Your task to perform on an android device: choose inbox layout in the gmail app Image 0: 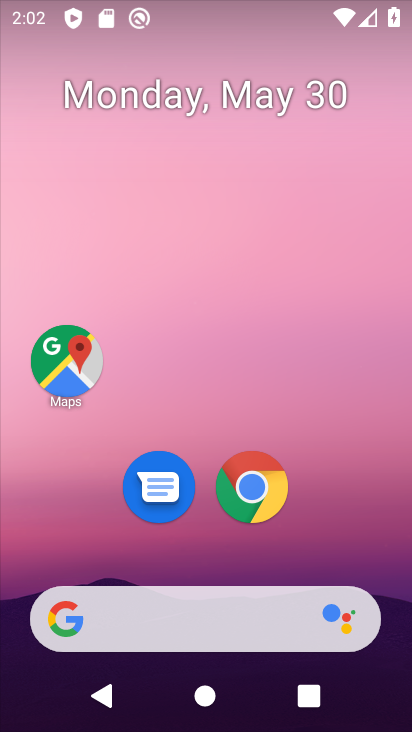
Step 0: drag from (205, 526) to (226, 2)
Your task to perform on an android device: choose inbox layout in the gmail app Image 1: 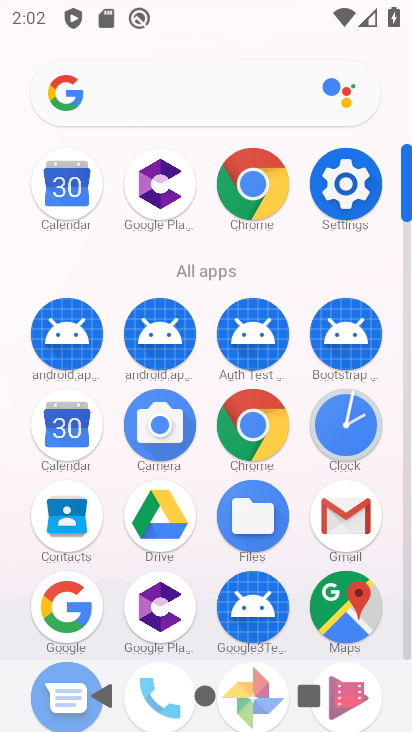
Step 1: click (346, 510)
Your task to perform on an android device: choose inbox layout in the gmail app Image 2: 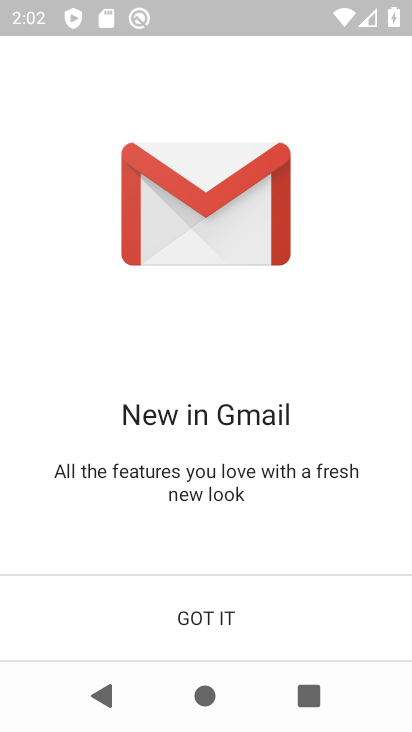
Step 2: click (206, 610)
Your task to perform on an android device: choose inbox layout in the gmail app Image 3: 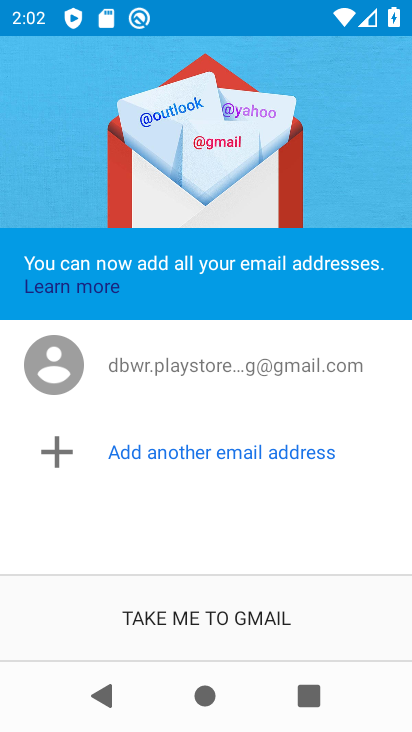
Step 3: click (206, 610)
Your task to perform on an android device: choose inbox layout in the gmail app Image 4: 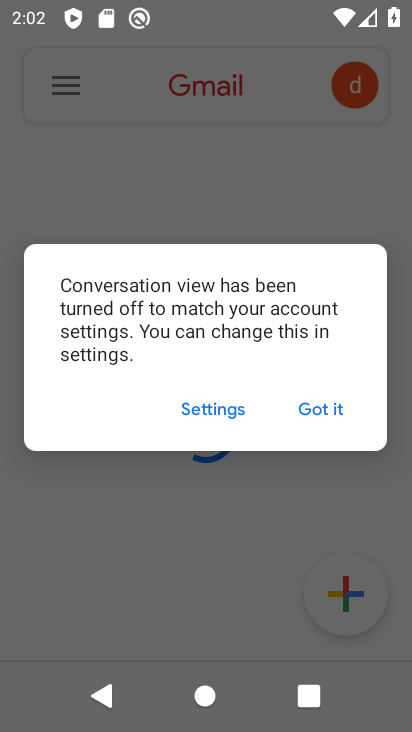
Step 4: click (320, 403)
Your task to perform on an android device: choose inbox layout in the gmail app Image 5: 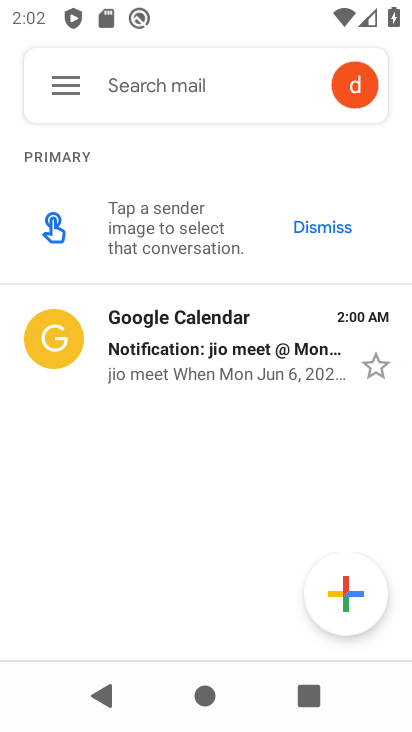
Step 5: click (74, 77)
Your task to perform on an android device: choose inbox layout in the gmail app Image 6: 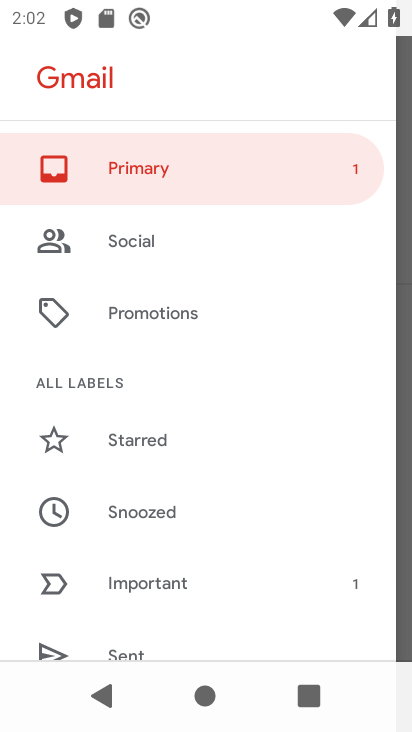
Step 6: drag from (194, 555) to (227, 202)
Your task to perform on an android device: choose inbox layout in the gmail app Image 7: 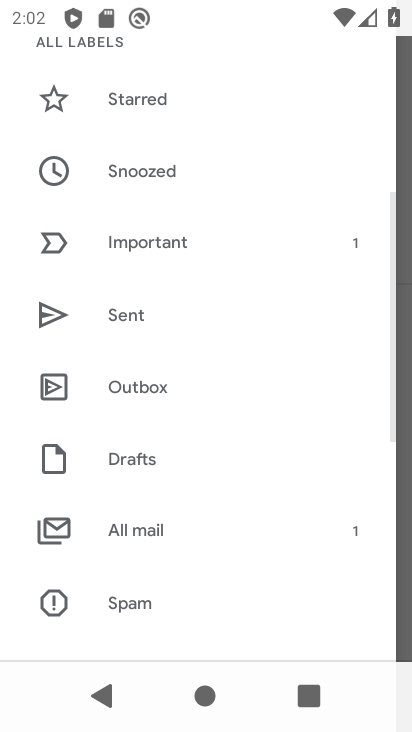
Step 7: drag from (166, 563) to (202, 292)
Your task to perform on an android device: choose inbox layout in the gmail app Image 8: 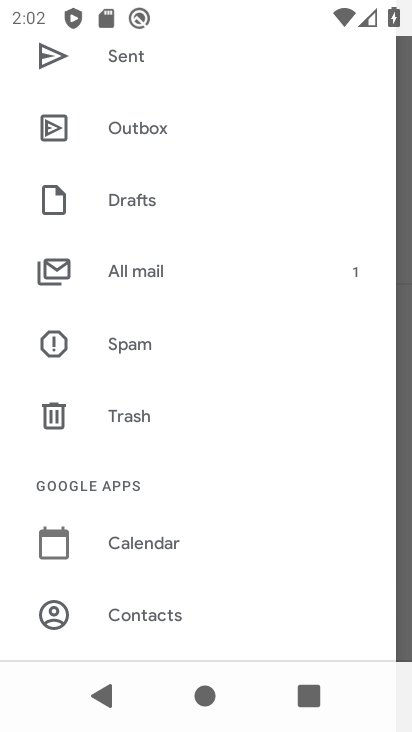
Step 8: drag from (117, 628) to (166, 359)
Your task to perform on an android device: choose inbox layout in the gmail app Image 9: 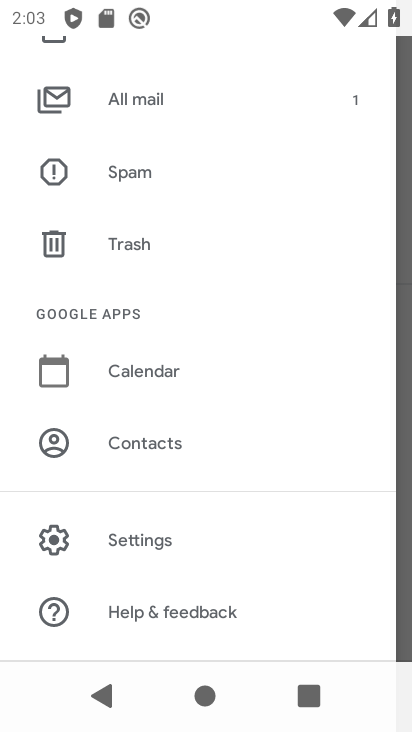
Step 9: click (146, 548)
Your task to perform on an android device: choose inbox layout in the gmail app Image 10: 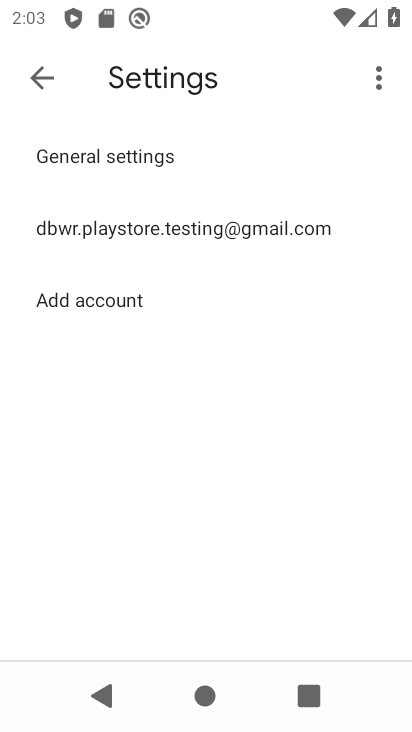
Step 10: click (170, 233)
Your task to perform on an android device: choose inbox layout in the gmail app Image 11: 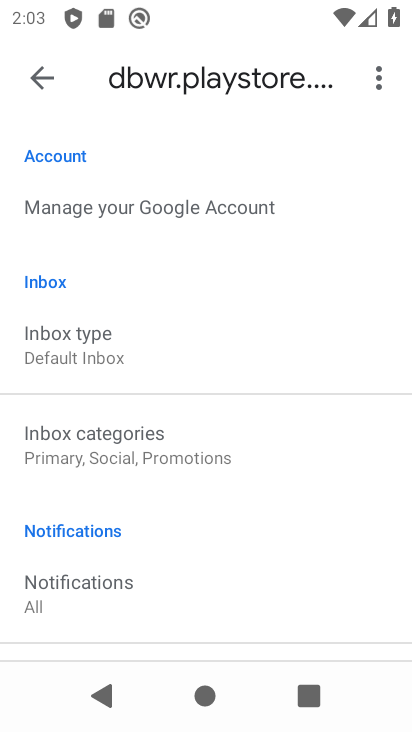
Step 11: drag from (126, 615) to (119, 332)
Your task to perform on an android device: choose inbox layout in the gmail app Image 12: 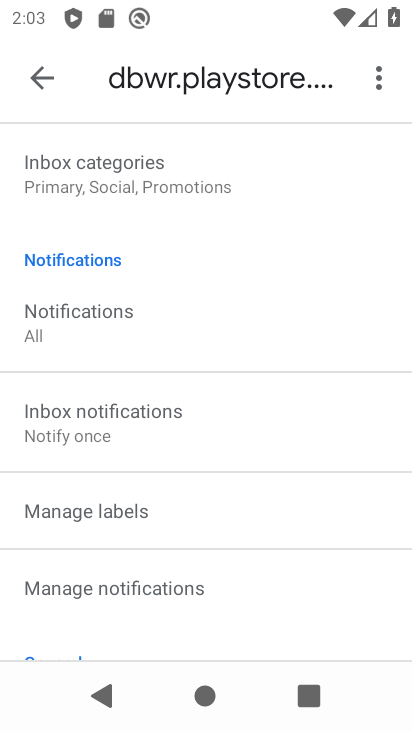
Step 12: drag from (149, 602) to (168, 246)
Your task to perform on an android device: choose inbox layout in the gmail app Image 13: 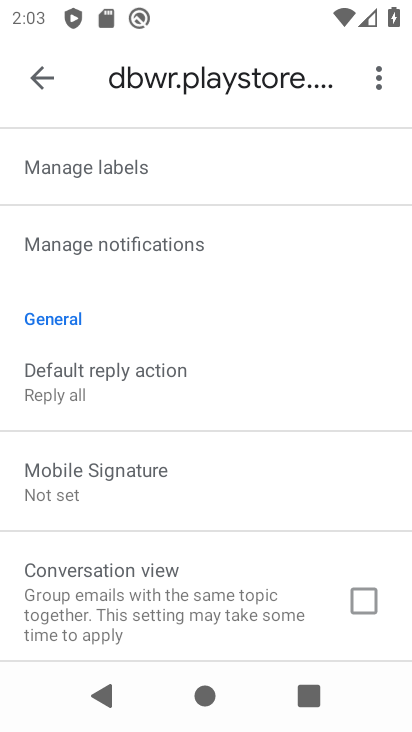
Step 13: drag from (137, 593) to (131, 276)
Your task to perform on an android device: choose inbox layout in the gmail app Image 14: 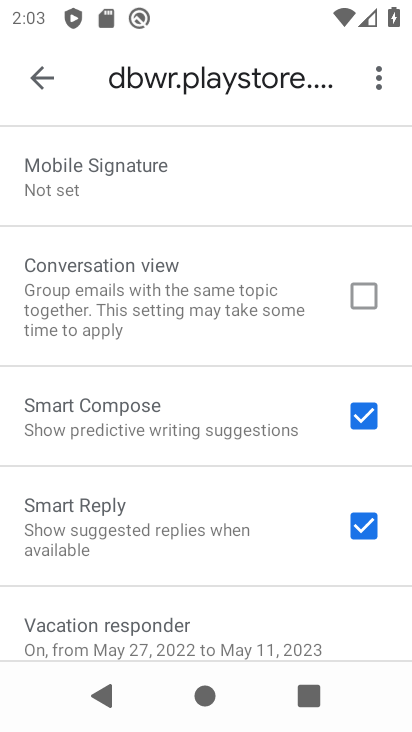
Step 14: drag from (247, 215) to (207, 574)
Your task to perform on an android device: choose inbox layout in the gmail app Image 15: 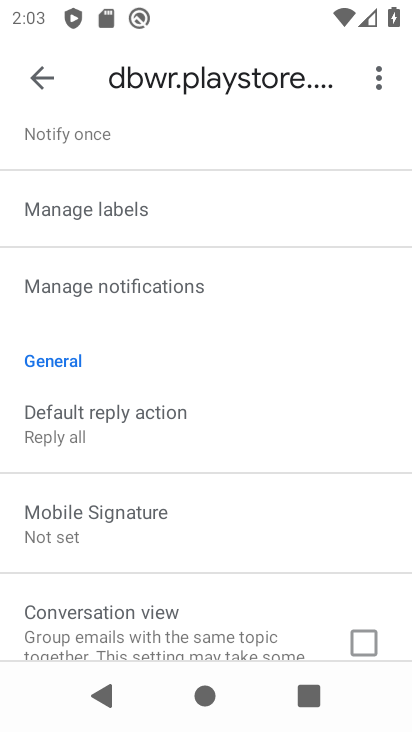
Step 15: drag from (254, 276) to (292, 676)
Your task to perform on an android device: choose inbox layout in the gmail app Image 16: 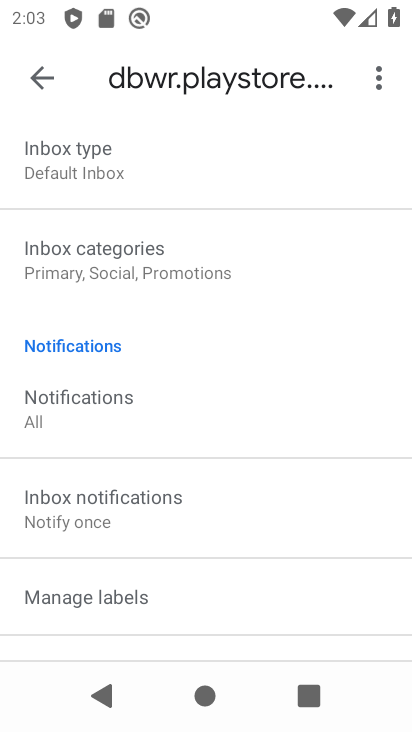
Step 16: click (292, 676)
Your task to perform on an android device: choose inbox layout in the gmail app Image 17: 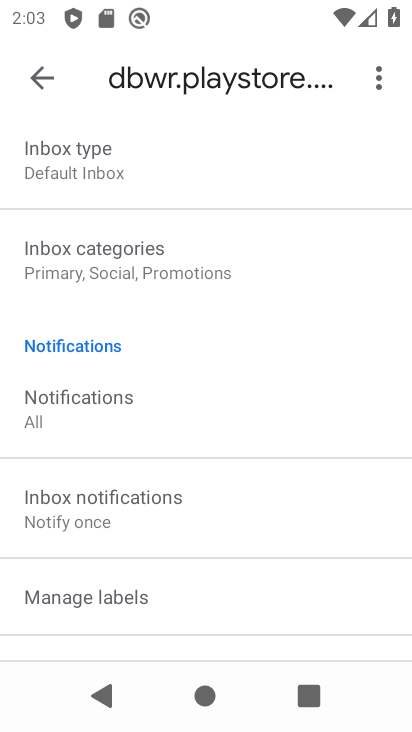
Step 17: drag from (133, 541) to (136, 321)
Your task to perform on an android device: choose inbox layout in the gmail app Image 18: 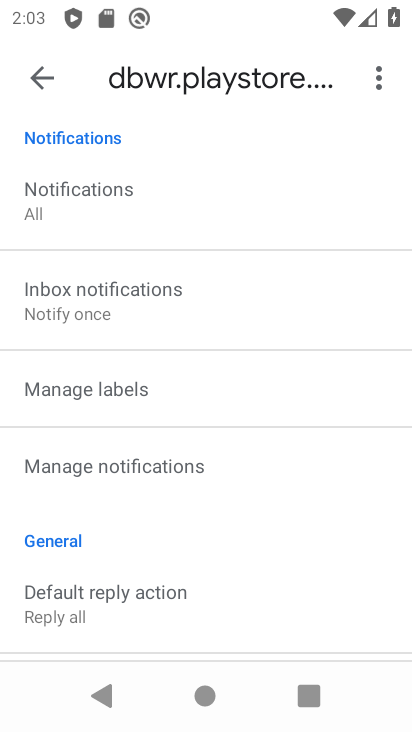
Step 18: drag from (86, 556) to (78, 198)
Your task to perform on an android device: choose inbox layout in the gmail app Image 19: 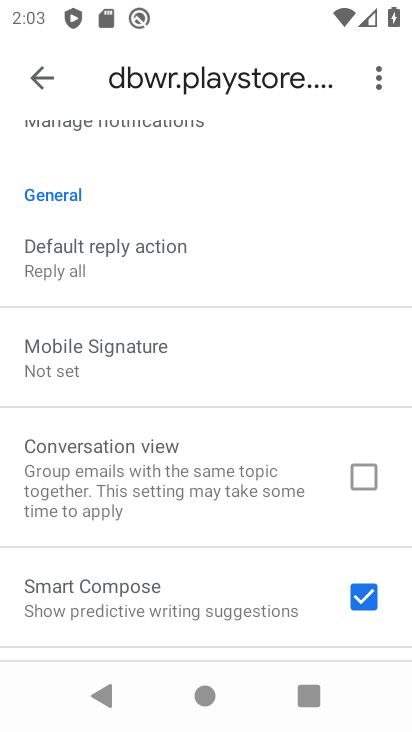
Step 19: drag from (178, 537) to (173, 262)
Your task to perform on an android device: choose inbox layout in the gmail app Image 20: 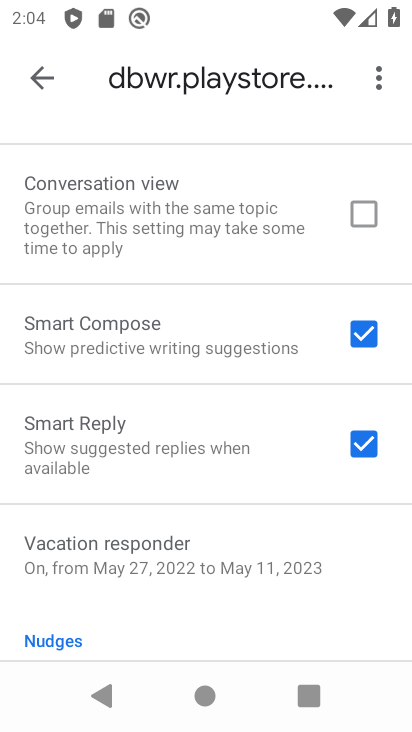
Step 20: drag from (153, 375) to (182, 599)
Your task to perform on an android device: choose inbox layout in the gmail app Image 21: 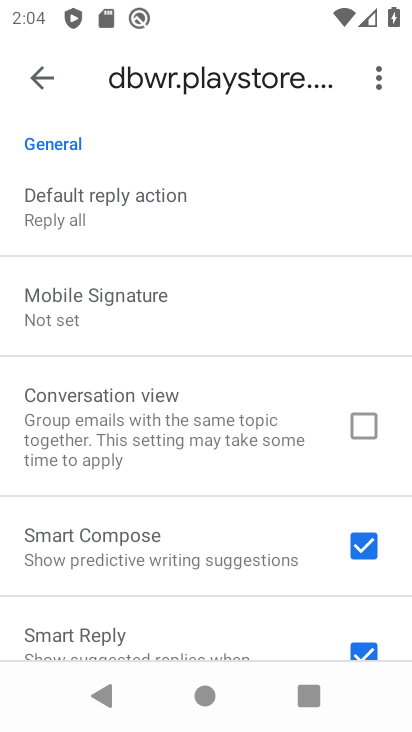
Step 21: drag from (202, 302) to (178, 582)
Your task to perform on an android device: choose inbox layout in the gmail app Image 22: 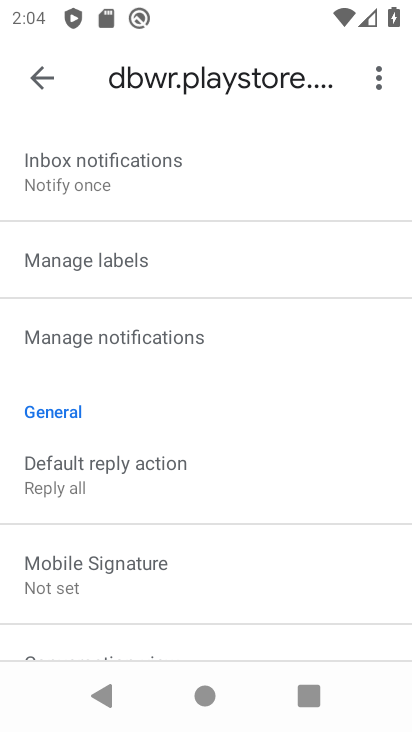
Step 22: drag from (153, 478) to (168, 655)
Your task to perform on an android device: choose inbox layout in the gmail app Image 23: 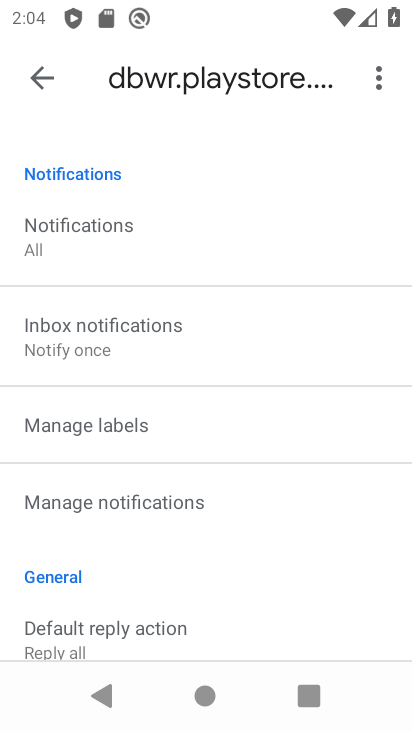
Step 23: drag from (150, 356) to (145, 712)
Your task to perform on an android device: choose inbox layout in the gmail app Image 24: 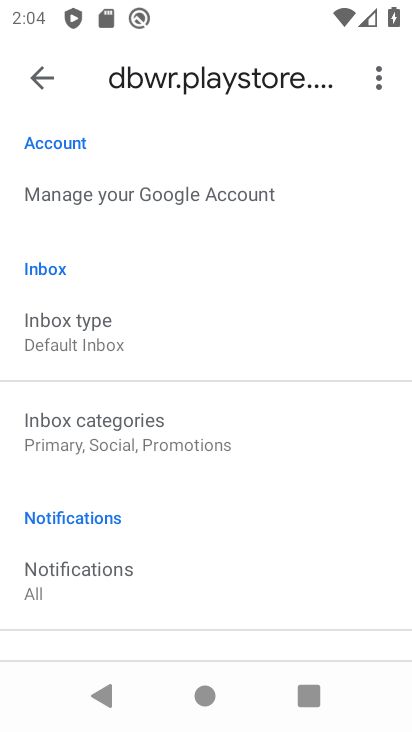
Step 24: drag from (109, 397) to (121, 640)
Your task to perform on an android device: choose inbox layout in the gmail app Image 25: 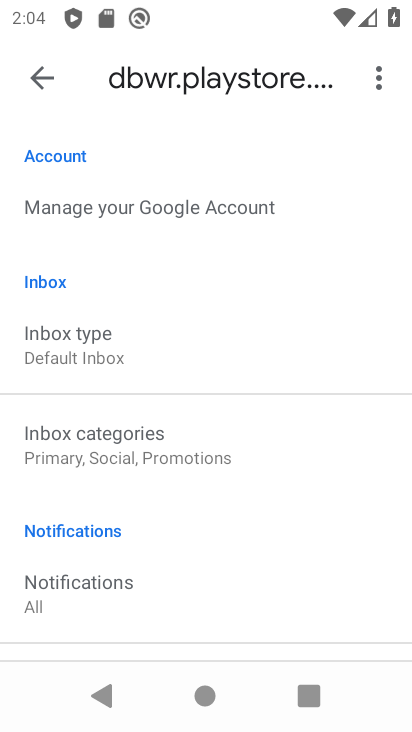
Step 25: drag from (156, 546) to (152, 159)
Your task to perform on an android device: choose inbox layout in the gmail app Image 26: 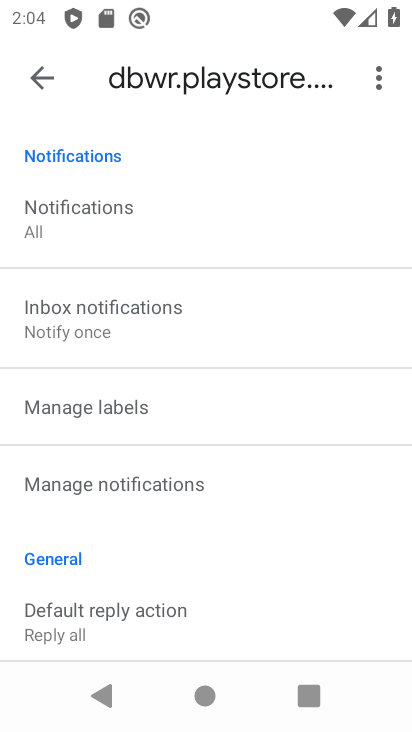
Step 26: drag from (101, 287) to (101, 675)
Your task to perform on an android device: choose inbox layout in the gmail app Image 27: 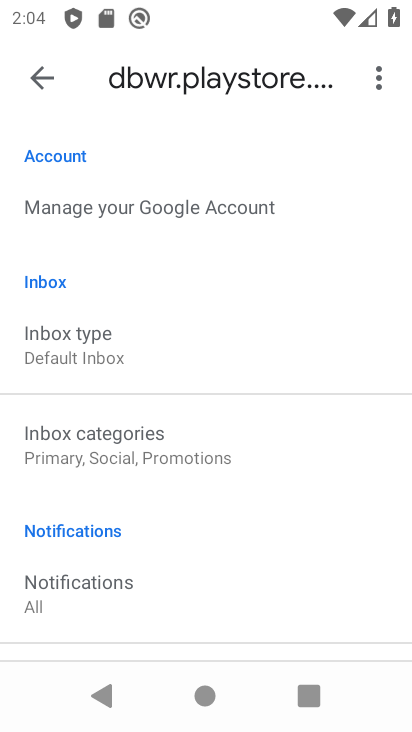
Step 27: drag from (86, 363) to (112, 729)
Your task to perform on an android device: choose inbox layout in the gmail app Image 28: 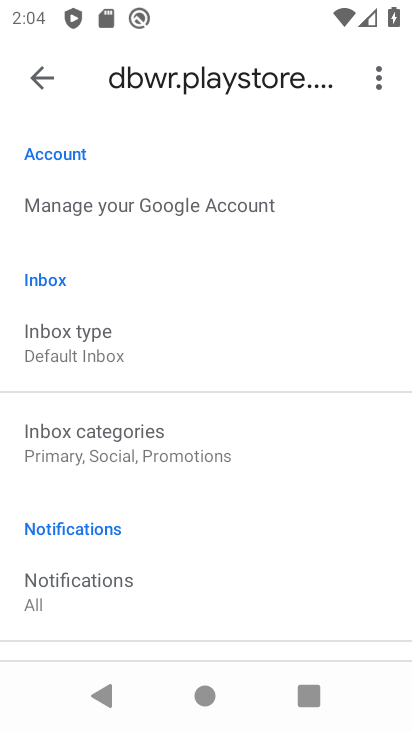
Step 28: click (107, 358)
Your task to perform on an android device: choose inbox layout in the gmail app Image 29: 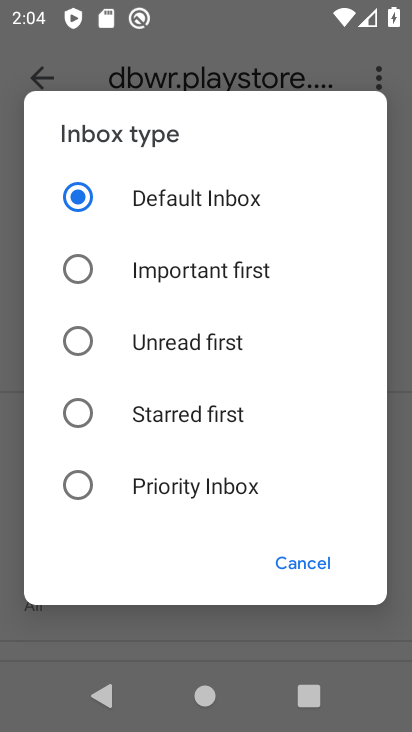
Step 29: click (74, 472)
Your task to perform on an android device: choose inbox layout in the gmail app Image 30: 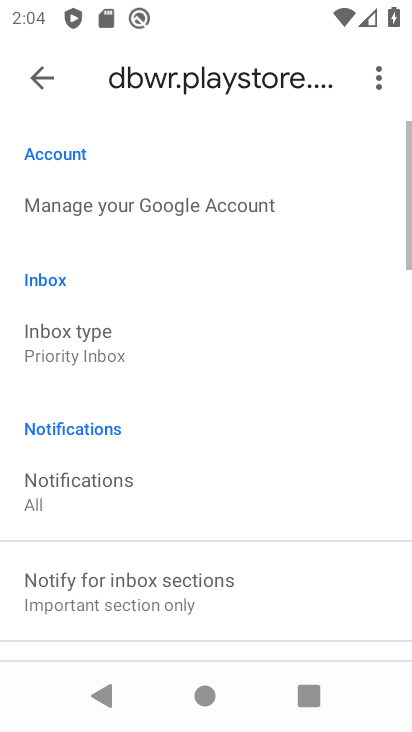
Step 30: task complete